Your task to perform on an android device: Go to Reddit.com Image 0: 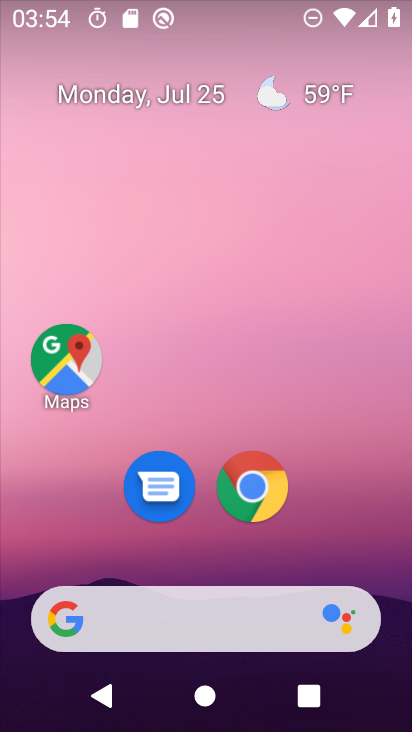
Step 0: click (248, 484)
Your task to perform on an android device: Go to Reddit.com Image 1: 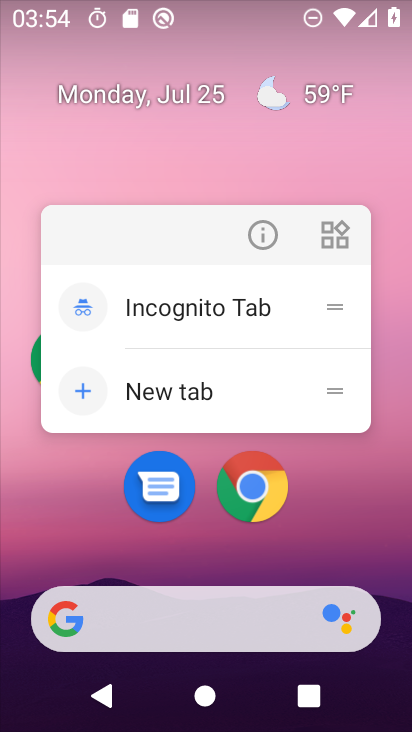
Step 1: click (257, 481)
Your task to perform on an android device: Go to Reddit.com Image 2: 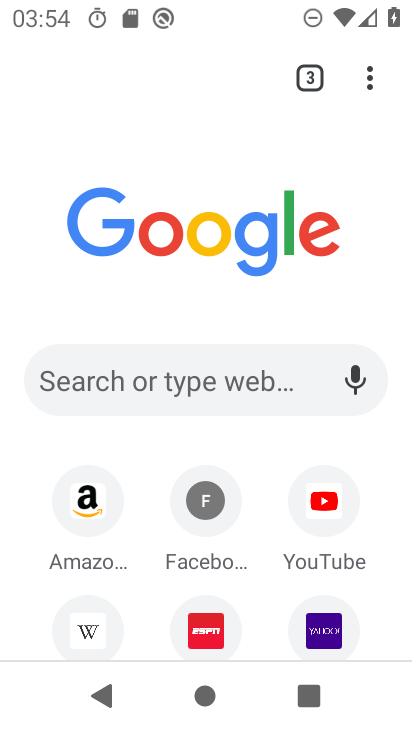
Step 2: click (166, 383)
Your task to perform on an android device: Go to Reddit.com Image 3: 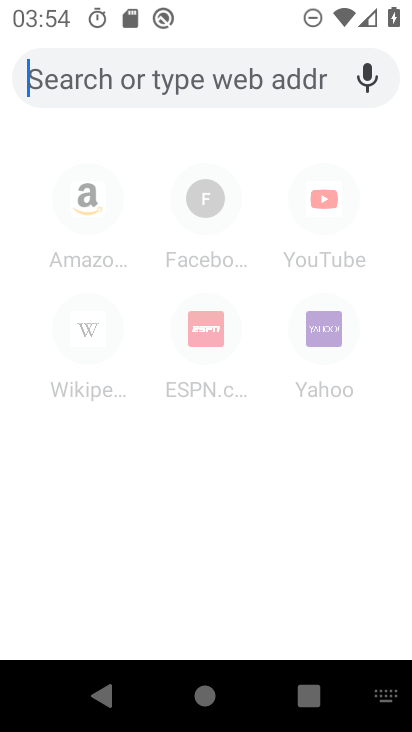
Step 3: type "reddit.com"
Your task to perform on an android device: Go to Reddit.com Image 4: 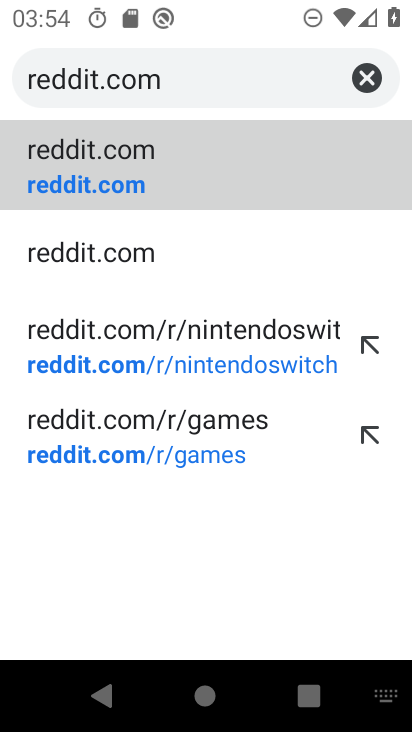
Step 4: click (77, 154)
Your task to perform on an android device: Go to Reddit.com Image 5: 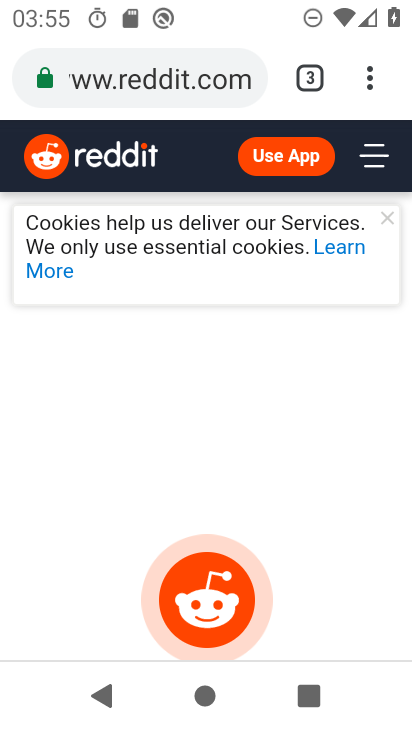
Step 5: task complete